Your task to perform on an android device: see tabs open on other devices in the chrome app Image 0: 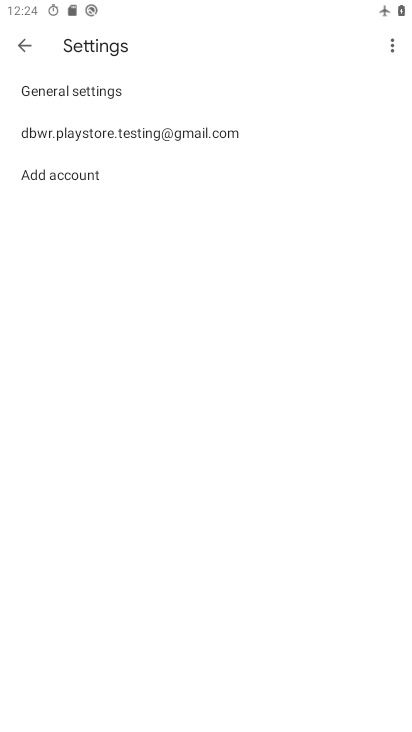
Step 0: press home button
Your task to perform on an android device: see tabs open on other devices in the chrome app Image 1: 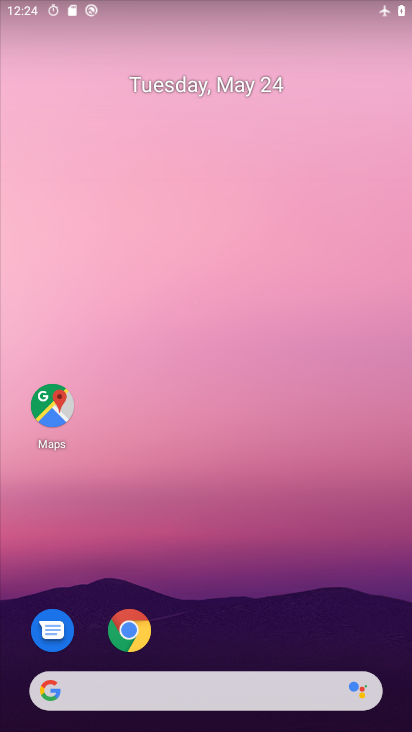
Step 1: drag from (198, 595) to (268, 21)
Your task to perform on an android device: see tabs open on other devices in the chrome app Image 2: 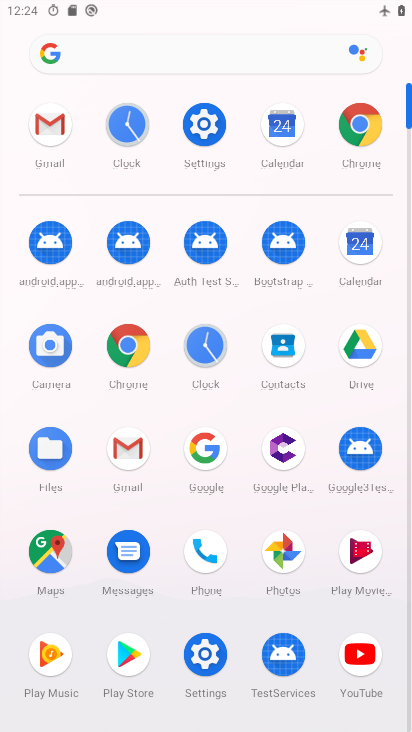
Step 2: click (130, 348)
Your task to perform on an android device: see tabs open on other devices in the chrome app Image 3: 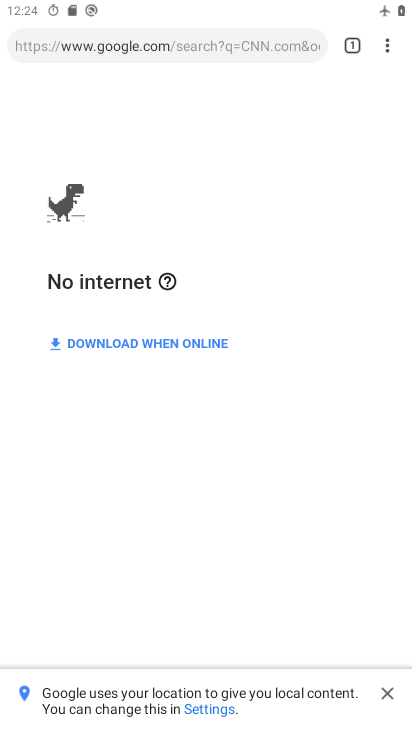
Step 3: click (397, 698)
Your task to perform on an android device: see tabs open on other devices in the chrome app Image 4: 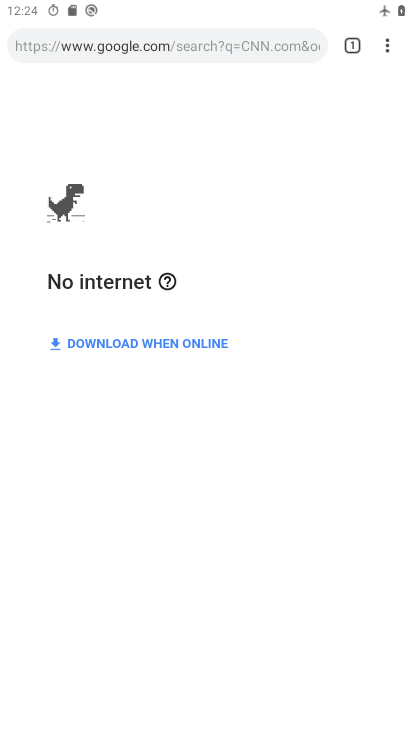
Step 4: click (395, 45)
Your task to perform on an android device: see tabs open on other devices in the chrome app Image 5: 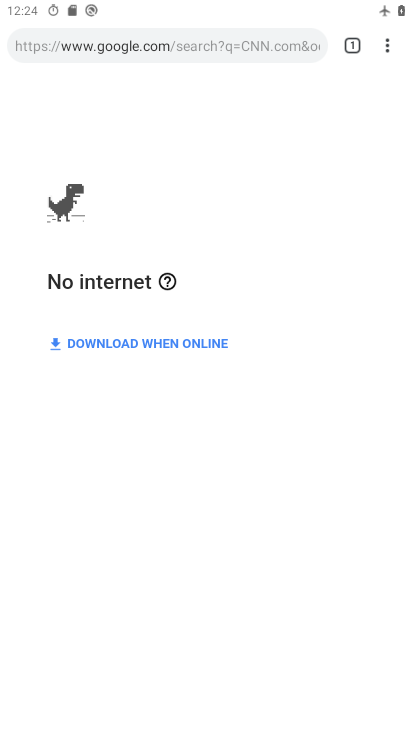
Step 5: click (384, 47)
Your task to perform on an android device: see tabs open on other devices in the chrome app Image 6: 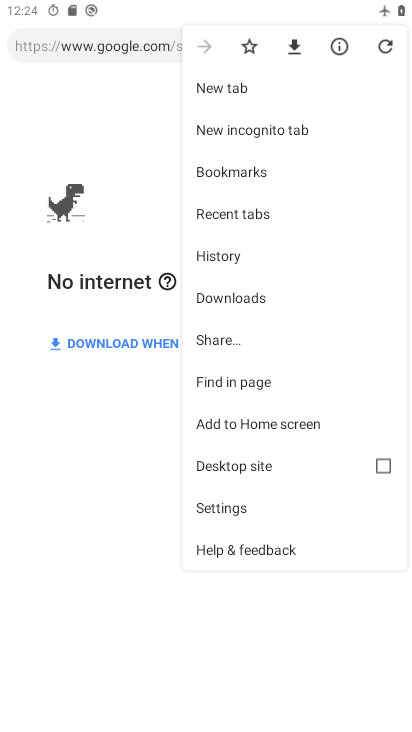
Step 6: click (228, 212)
Your task to perform on an android device: see tabs open on other devices in the chrome app Image 7: 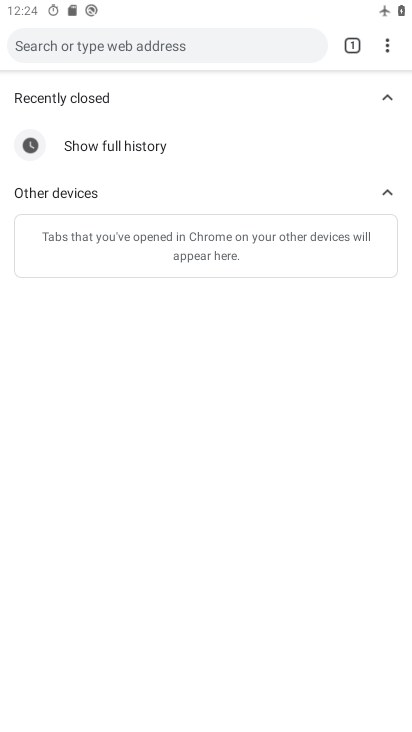
Step 7: task complete